Your task to perform on an android device: change the clock display to show seconds Image 0: 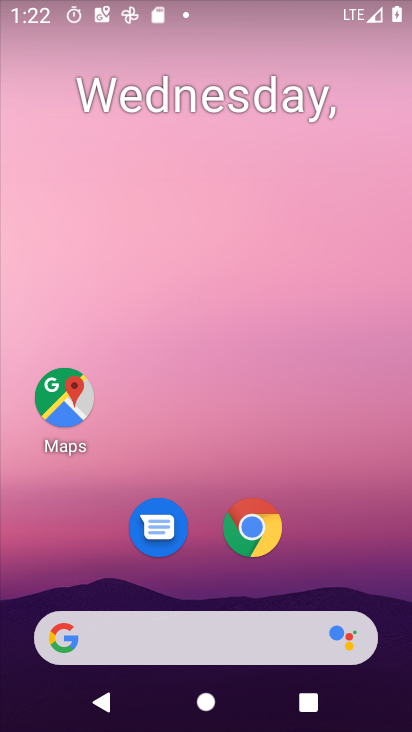
Step 0: drag from (238, 579) to (299, 34)
Your task to perform on an android device: change the clock display to show seconds Image 1: 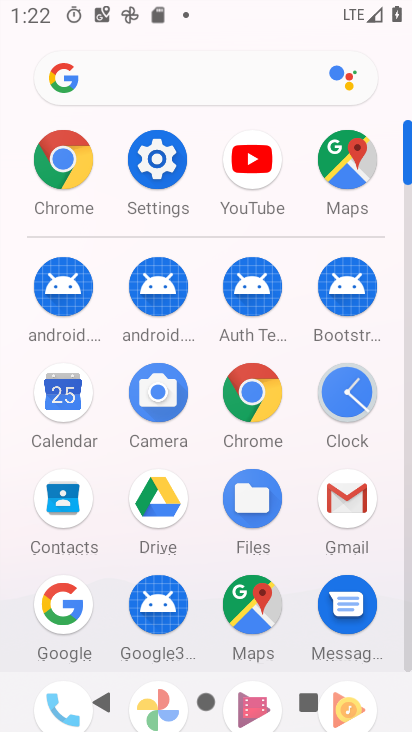
Step 1: click (346, 407)
Your task to perform on an android device: change the clock display to show seconds Image 2: 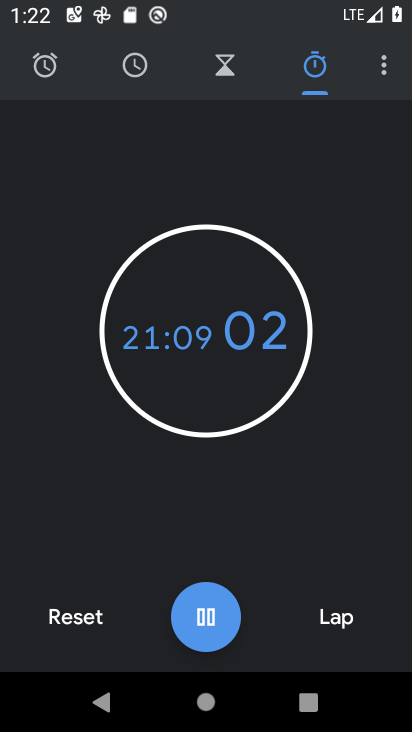
Step 2: click (385, 79)
Your task to perform on an android device: change the clock display to show seconds Image 3: 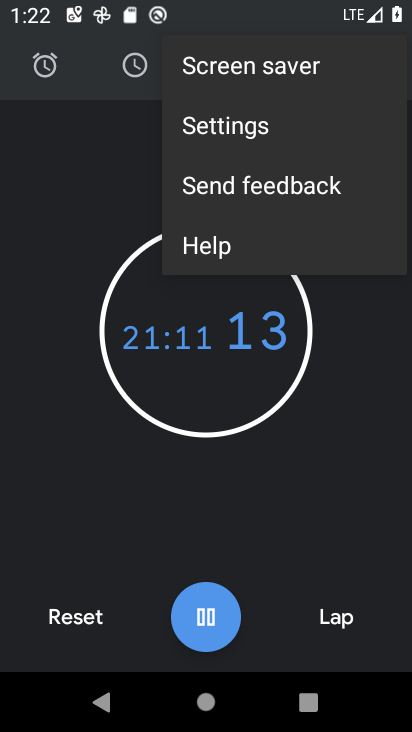
Step 3: click (246, 131)
Your task to perform on an android device: change the clock display to show seconds Image 4: 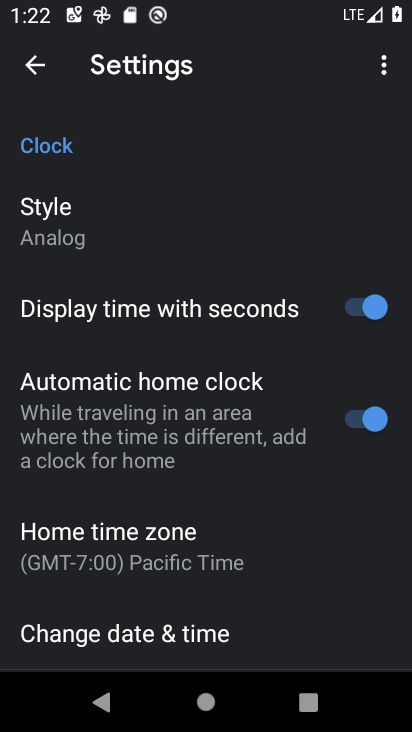
Step 4: task complete